Your task to perform on an android device: When is my next appointment? Image 0: 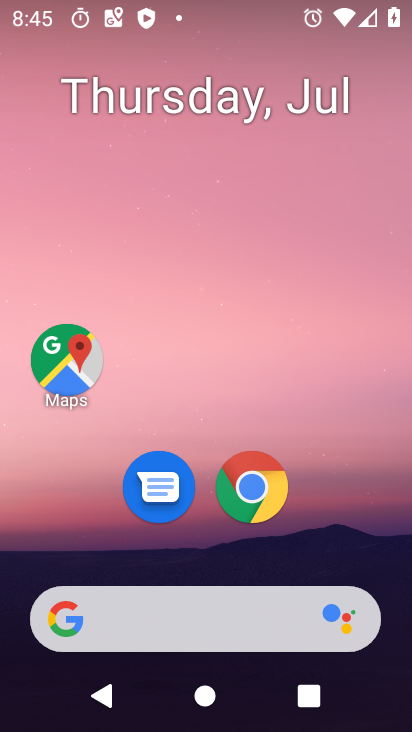
Step 0: drag from (238, 668) to (263, 284)
Your task to perform on an android device: When is my next appointment? Image 1: 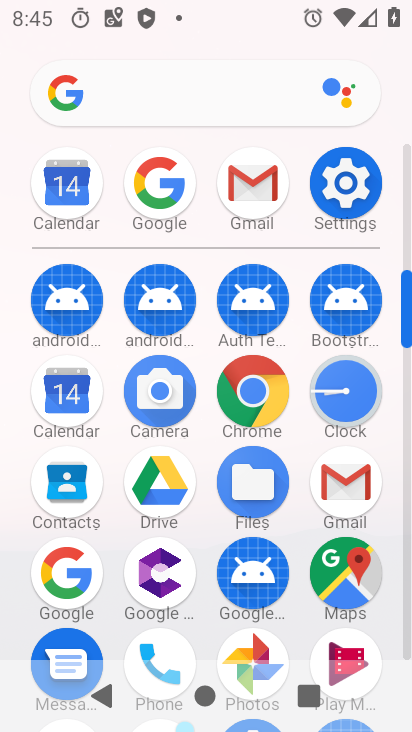
Step 1: click (78, 389)
Your task to perform on an android device: When is my next appointment? Image 2: 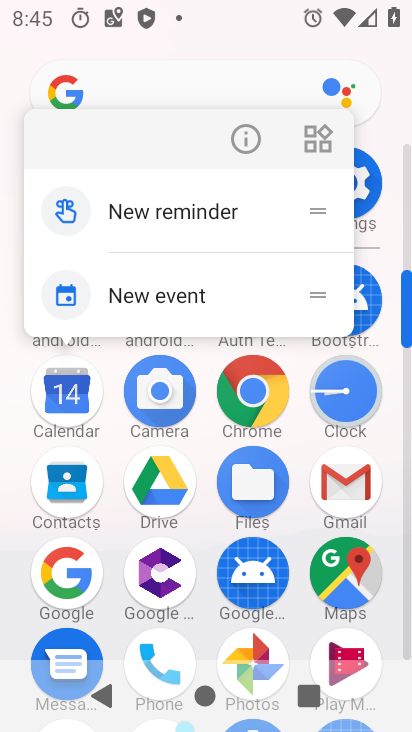
Step 2: click (69, 415)
Your task to perform on an android device: When is my next appointment? Image 3: 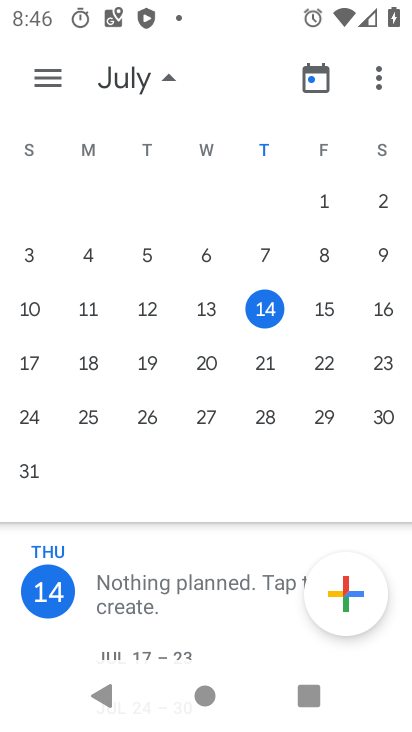
Step 3: task complete